Your task to perform on an android device: move an email to a new category in the gmail app Image 0: 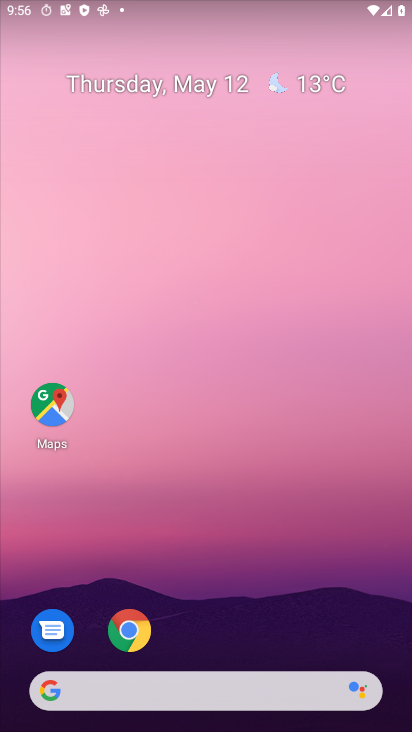
Step 0: drag from (225, 670) to (261, 209)
Your task to perform on an android device: move an email to a new category in the gmail app Image 1: 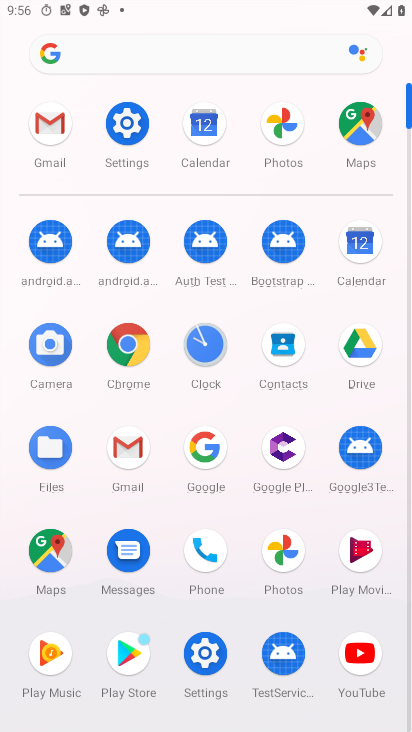
Step 1: click (42, 128)
Your task to perform on an android device: move an email to a new category in the gmail app Image 2: 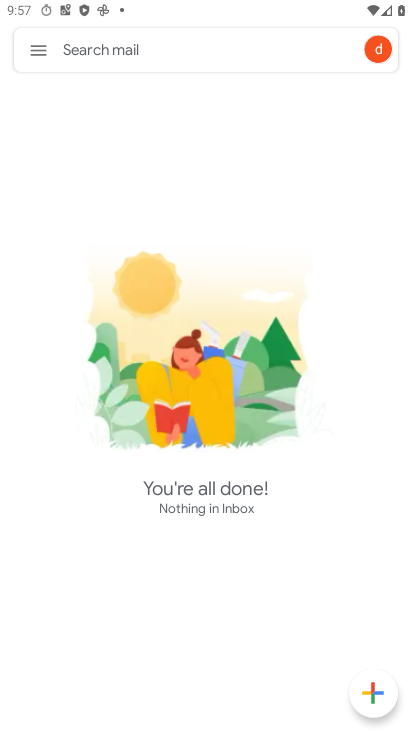
Step 2: click (36, 68)
Your task to perform on an android device: move an email to a new category in the gmail app Image 3: 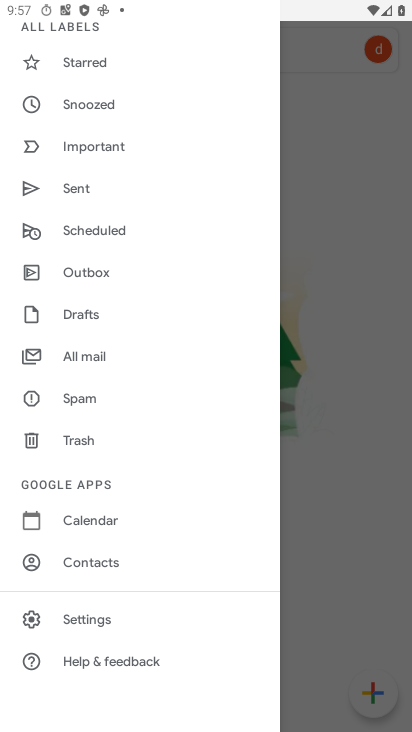
Step 3: click (317, 309)
Your task to perform on an android device: move an email to a new category in the gmail app Image 4: 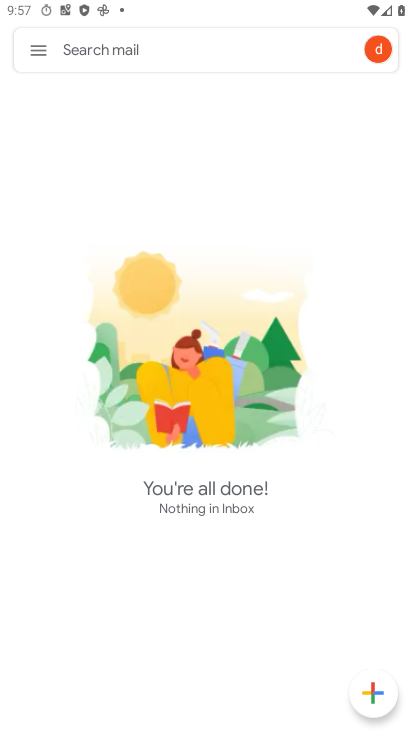
Step 4: click (36, 60)
Your task to perform on an android device: move an email to a new category in the gmail app Image 5: 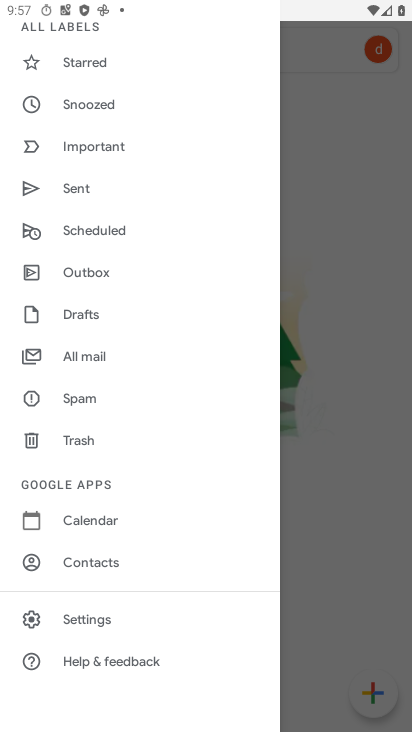
Step 5: task complete